Your task to perform on an android device: When is my next meeting? Image 0: 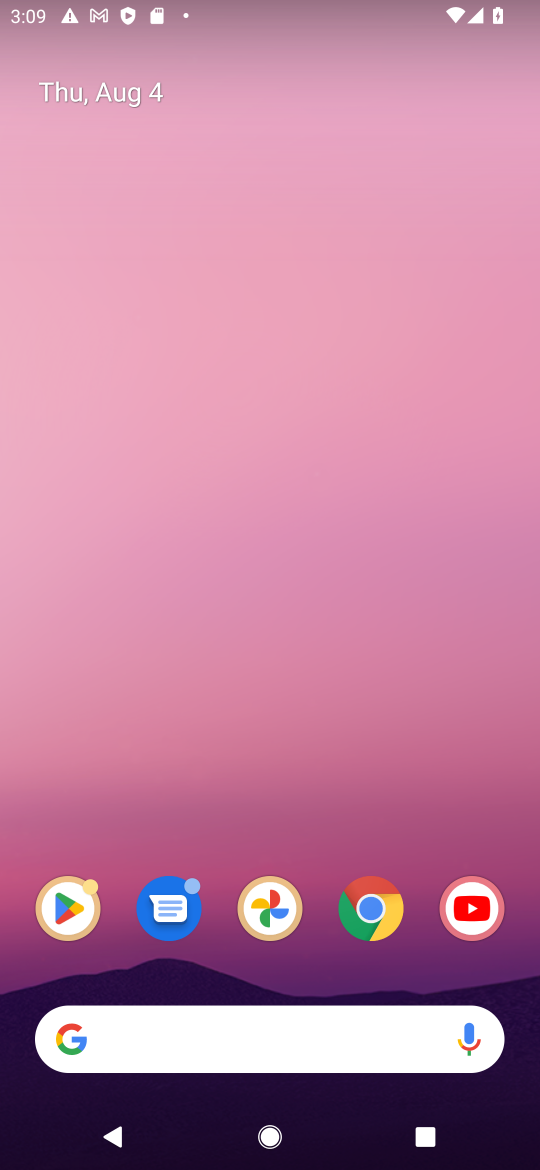
Step 0: drag from (204, 976) to (361, 3)
Your task to perform on an android device: When is my next meeting? Image 1: 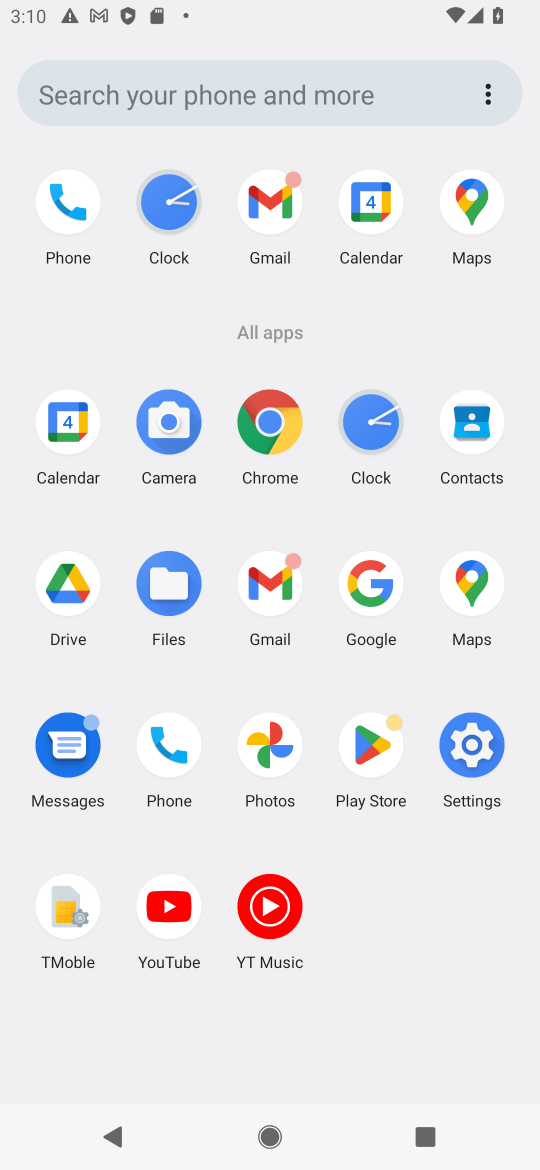
Step 1: click (426, 967)
Your task to perform on an android device: When is my next meeting? Image 2: 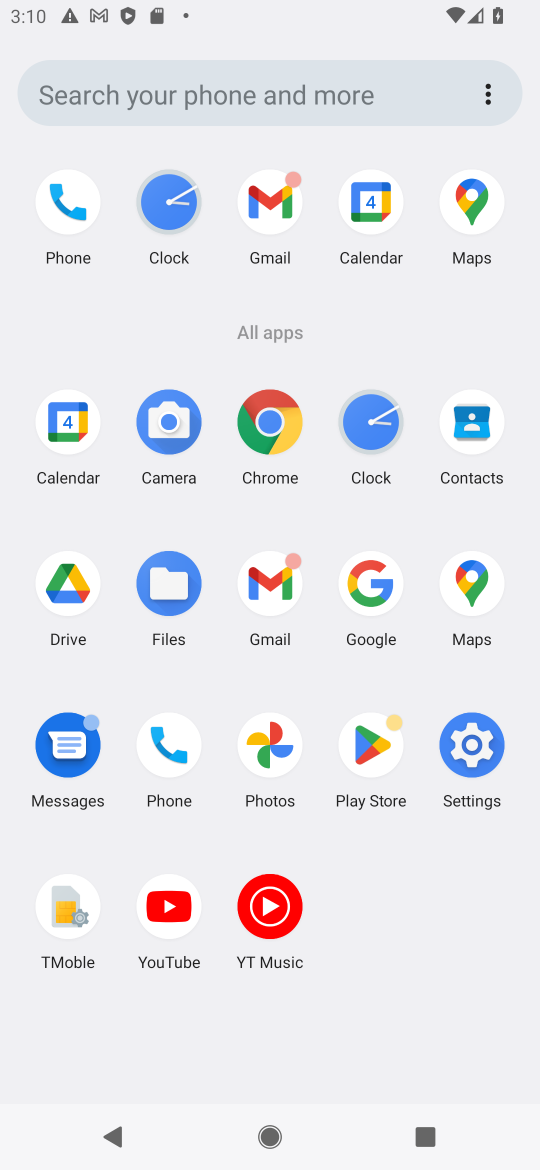
Step 2: click (65, 437)
Your task to perform on an android device: When is my next meeting? Image 3: 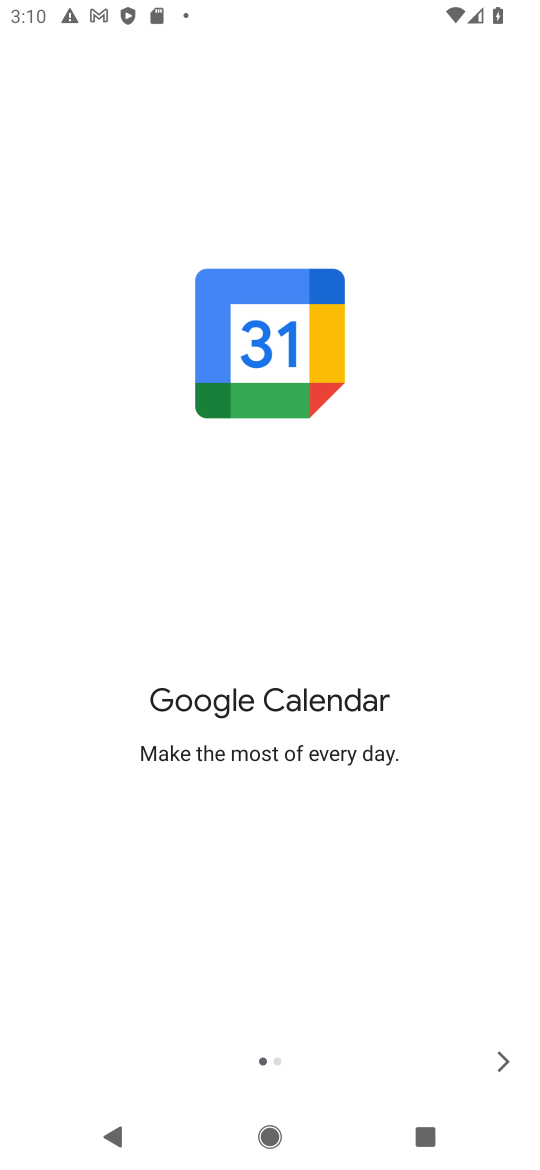
Step 3: click (496, 1061)
Your task to perform on an android device: When is my next meeting? Image 4: 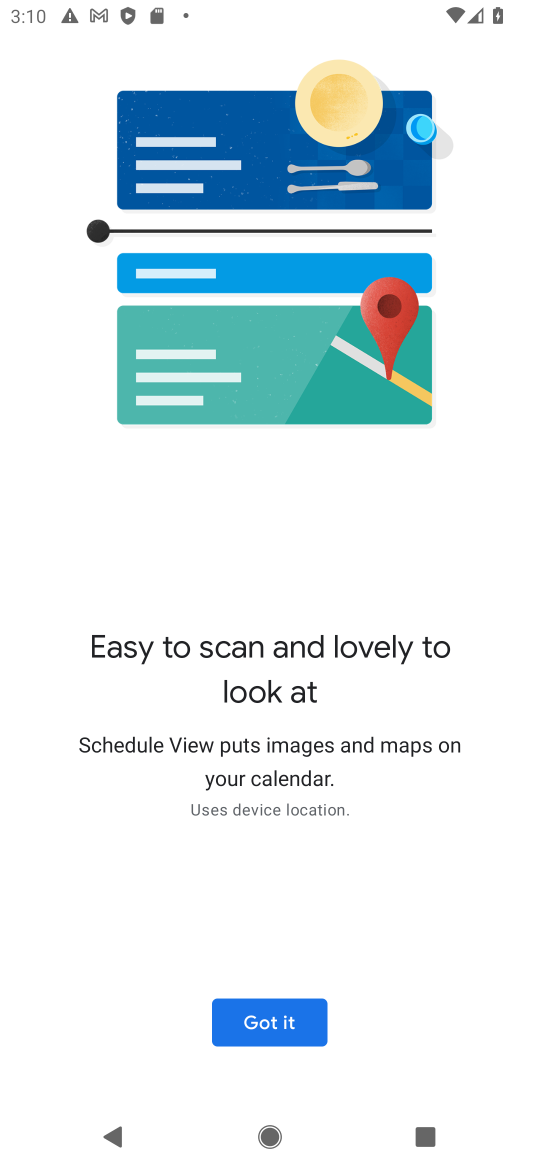
Step 4: click (272, 1002)
Your task to perform on an android device: When is my next meeting? Image 5: 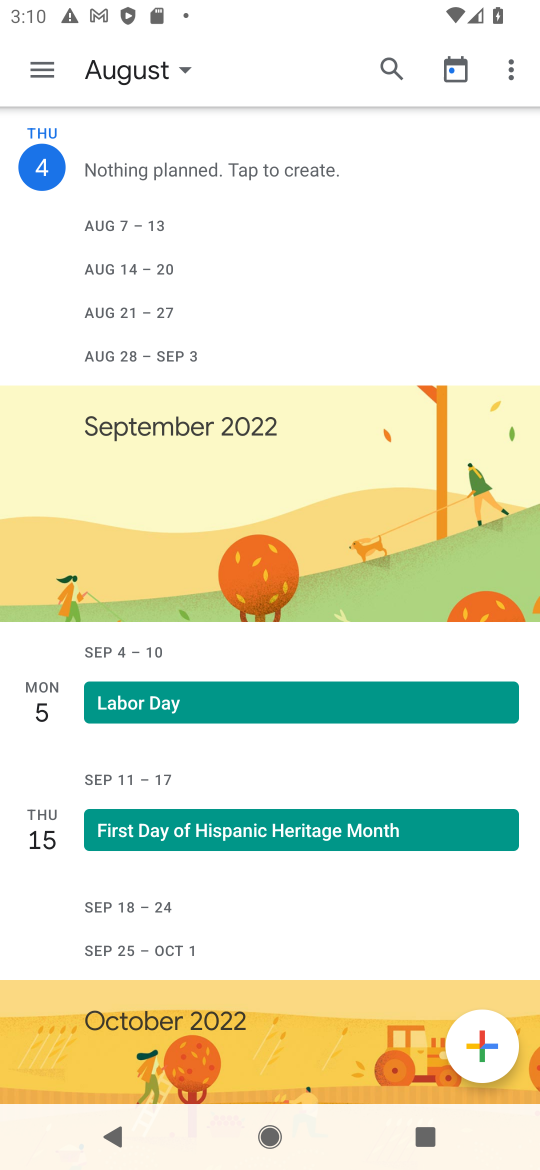
Step 5: click (148, 78)
Your task to perform on an android device: When is my next meeting? Image 6: 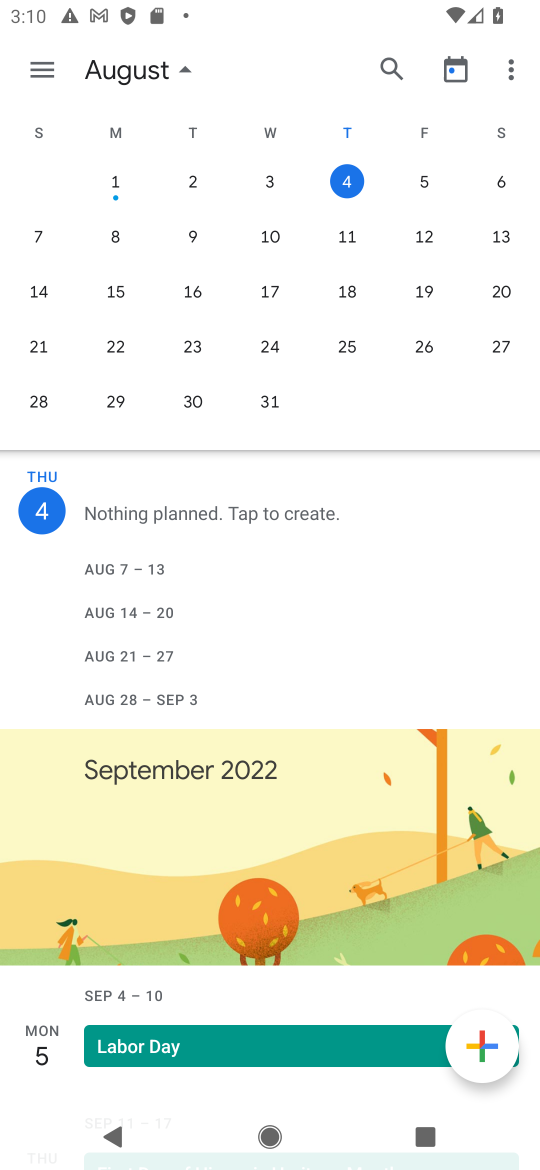
Step 6: click (346, 238)
Your task to perform on an android device: When is my next meeting? Image 7: 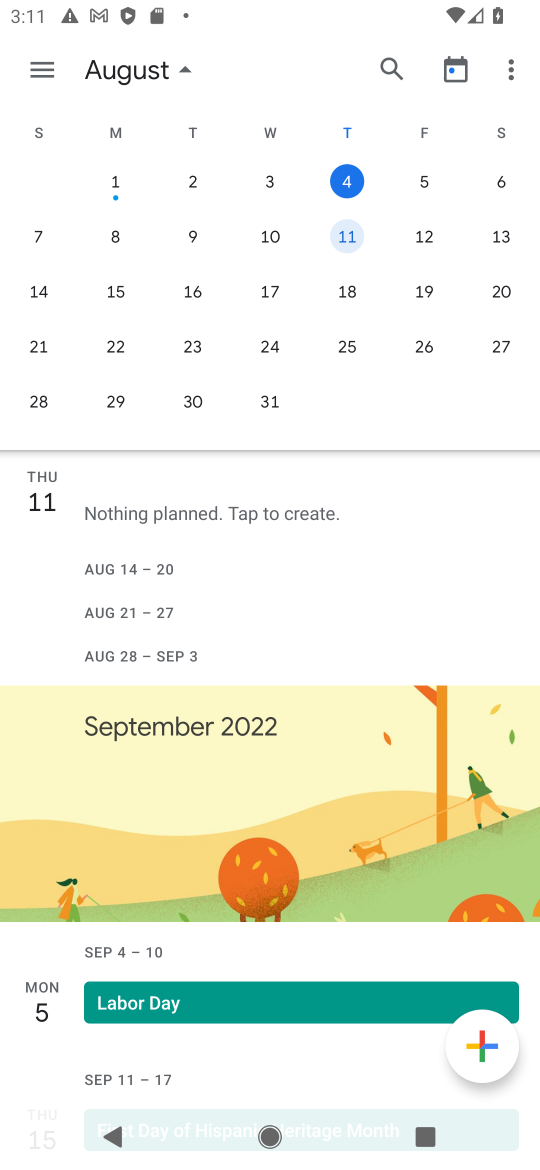
Step 7: task complete